Your task to perform on an android device: choose inbox layout in the gmail app Image 0: 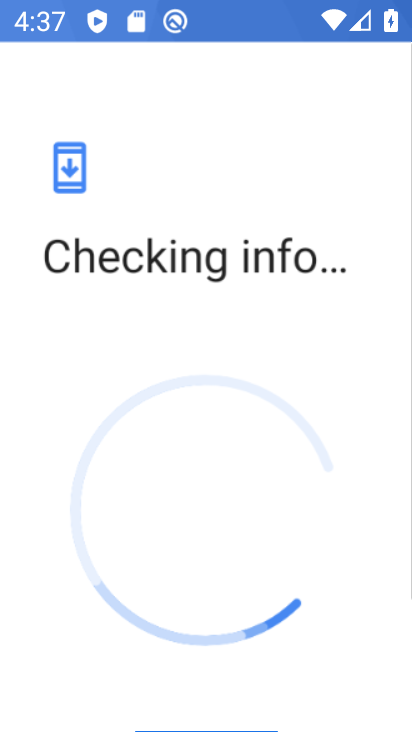
Step 0: drag from (213, 493) to (276, 0)
Your task to perform on an android device: choose inbox layout in the gmail app Image 1: 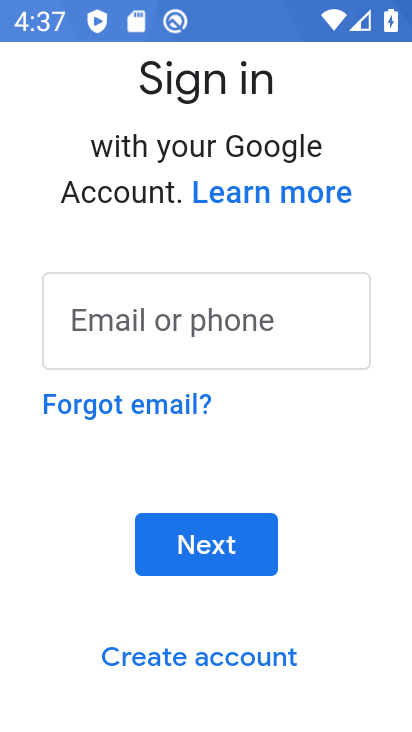
Step 1: press home button
Your task to perform on an android device: choose inbox layout in the gmail app Image 2: 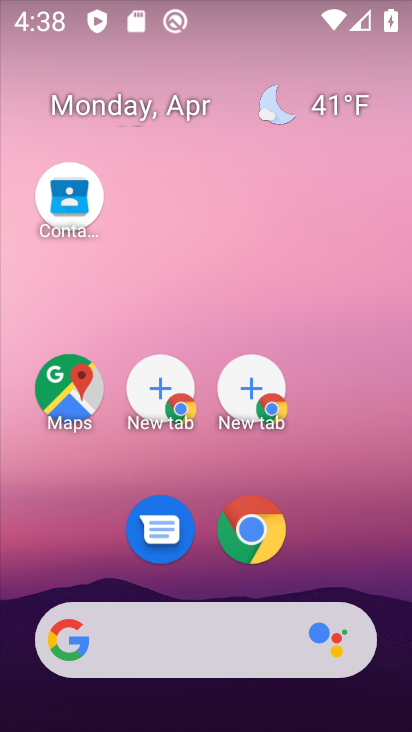
Step 2: drag from (336, 504) to (393, 32)
Your task to perform on an android device: choose inbox layout in the gmail app Image 3: 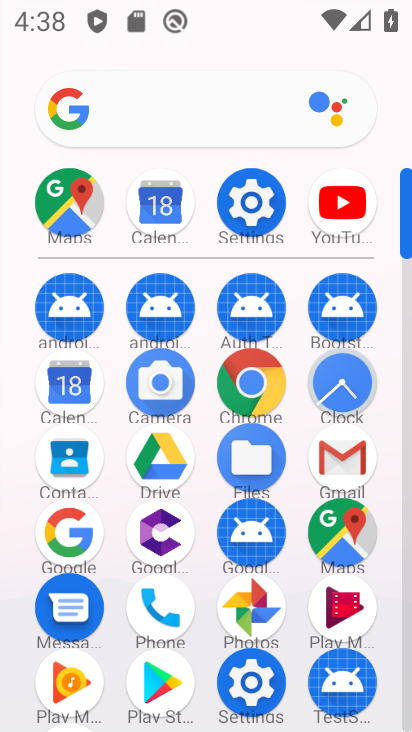
Step 3: click (340, 440)
Your task to perform on an android device: choose inbox layout in the gmail app Image 4: 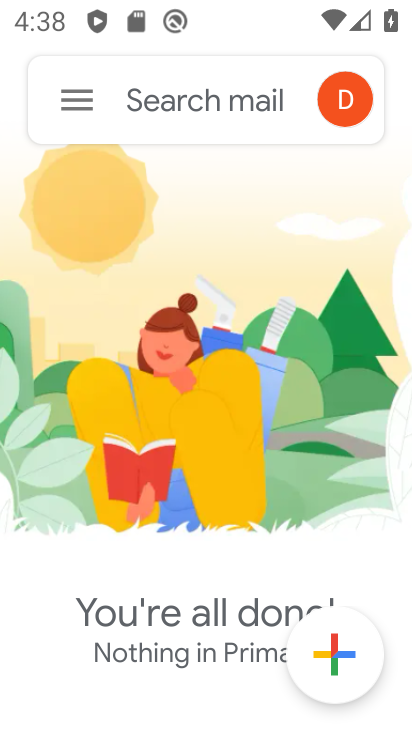
Step 4: click (80, 103)
Your task to perform on an android device: choose inbox layout in the gmail app Image 5: 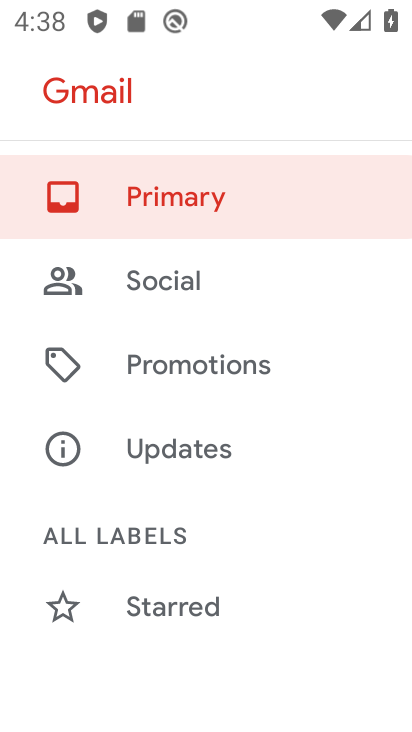
Step 5: drag from (212, 583) to (319, 6)
Your task to perform on an android device: choose inbox layout in the gmail app Image 6: 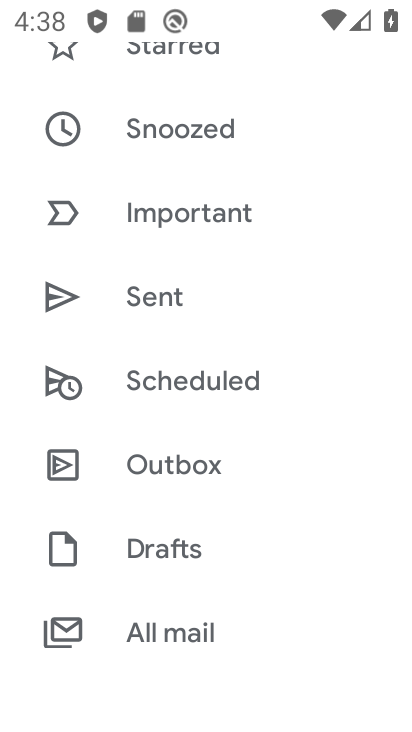
Step 6: drag from (129, 578) to (268, 20)
Your task to perform on an android device: choose inbox layout in the gmail app Image 7: 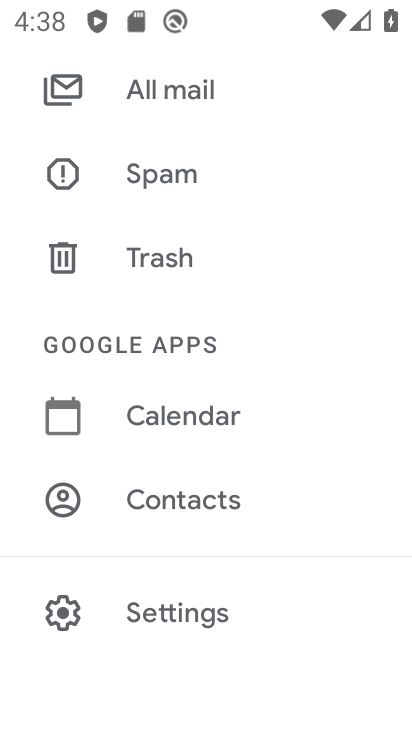
Step 7: click (184, 615)
Your task to perform on an android device: choose inbox layout in the gmail app Image 8: 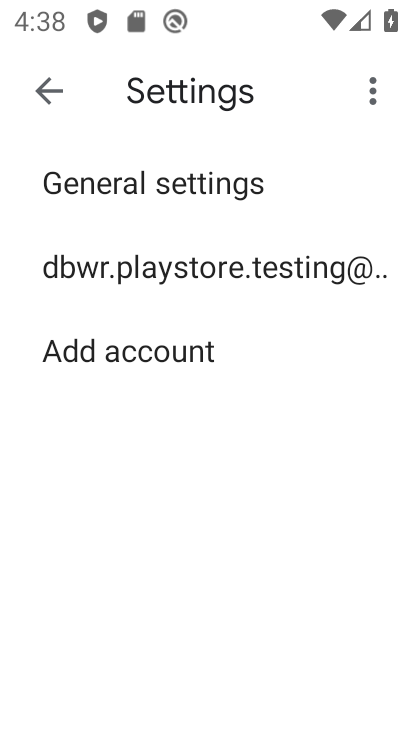
Step 8: click (191, 251)
Your task to perform on an android device: choose inbox layout in the gmail app Image 9: 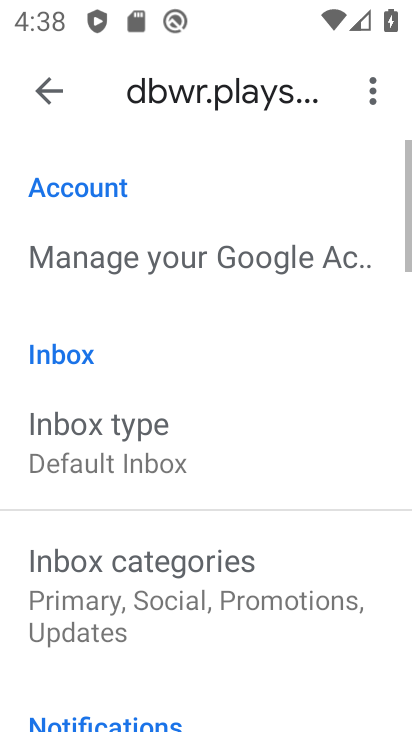
Step 9: click (144, 422)
Your task to perform on an android device: choose inbox layout in the gmail app Image 10: 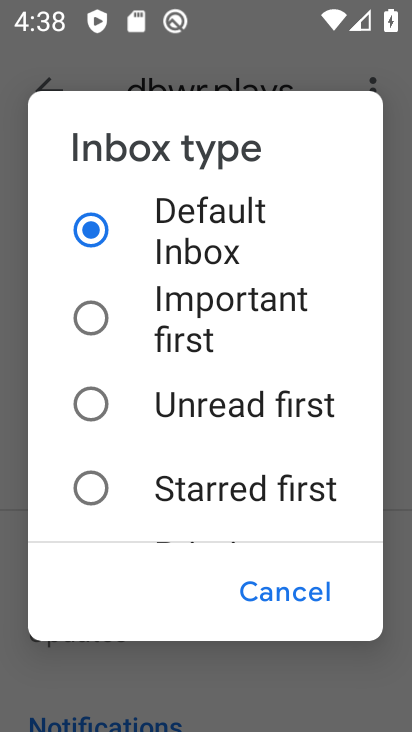
Step 10: click (96, 307)
Your task to perform on an android device: choose inbox layout in the gmail app Image 11: 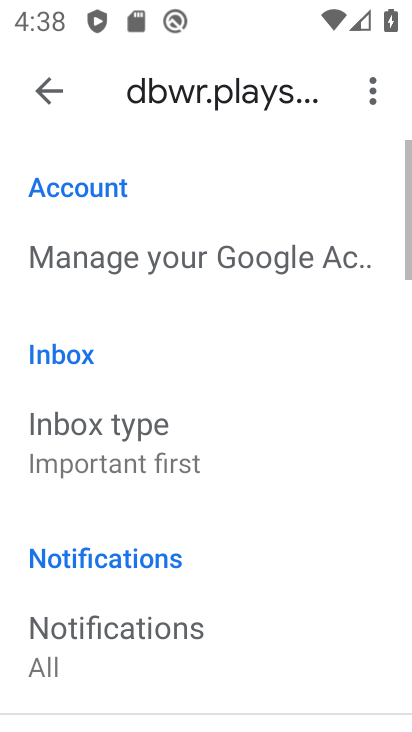
Step 11: task complete